Your task to perform on an android device: turn smart compose on in the gmail app Image 0: 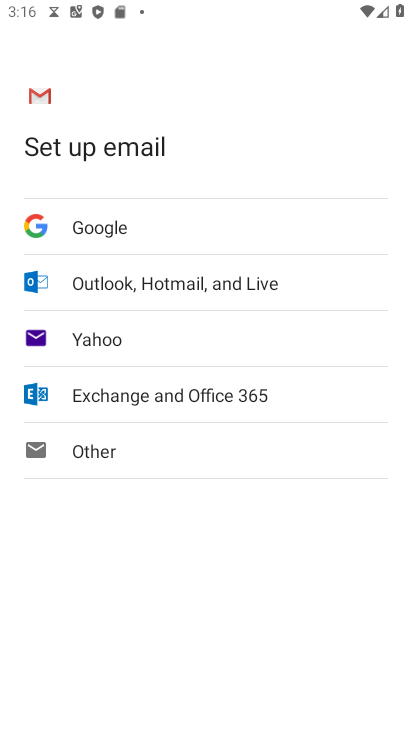
Step 0: press home button
Your task to perform on an android device: turn smart compose on in the gmail app Image 1: 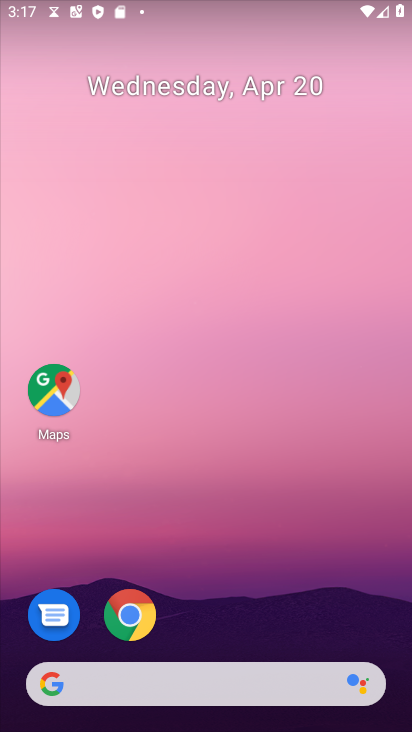
Step 1: drag from (191, 620) to (238, 269)
Your task to perform on an android device: turn smart compose on in the gmail app Image 2: 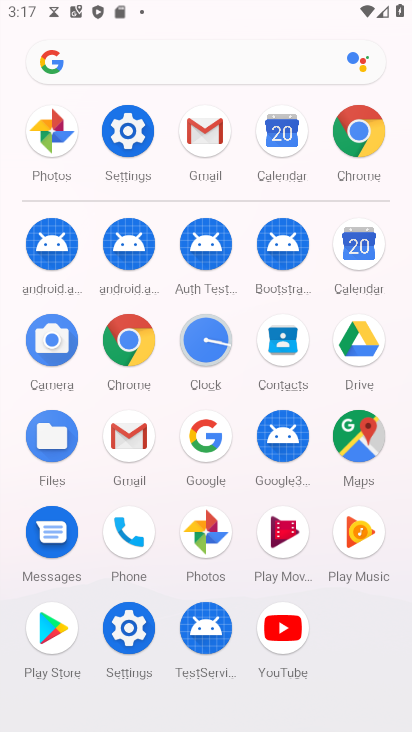
Step 2: click (146, 436)
Your task to perform on an android device: turn smart compose on in the gmail app Image 3: 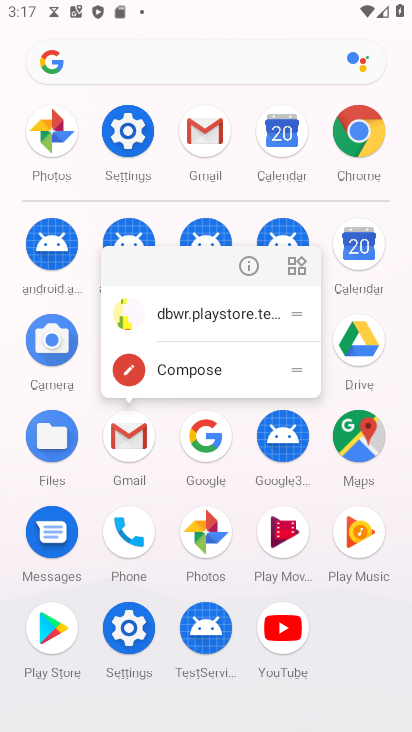
Step 3: click (258, 261)
Your task to perform on an android device: turn smart compose on in the gmail app Image 4: 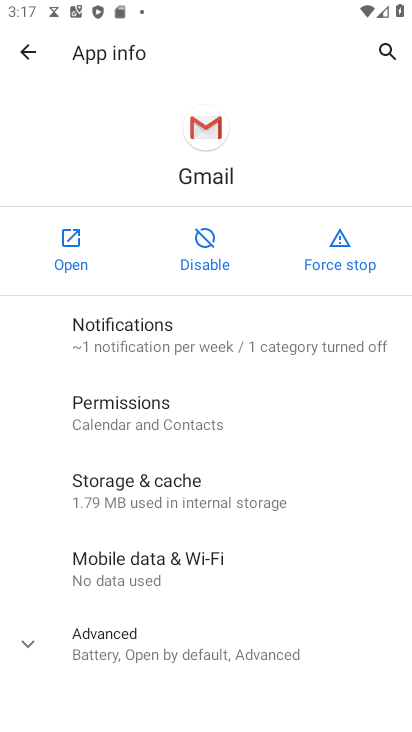
Step 4: click (68, 258)
Your task to perform on an android device: turn smart compose on in the gmail app Image 5: 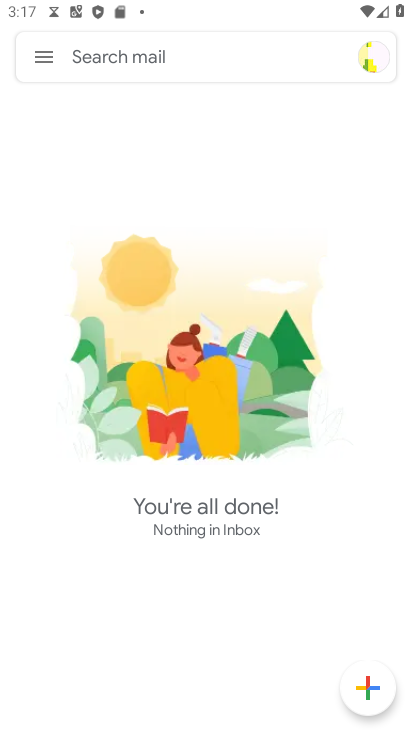
Step 5: click (35, 64)
Your task to perform on an android device: turn smart compose on in the gmail app Image 6: 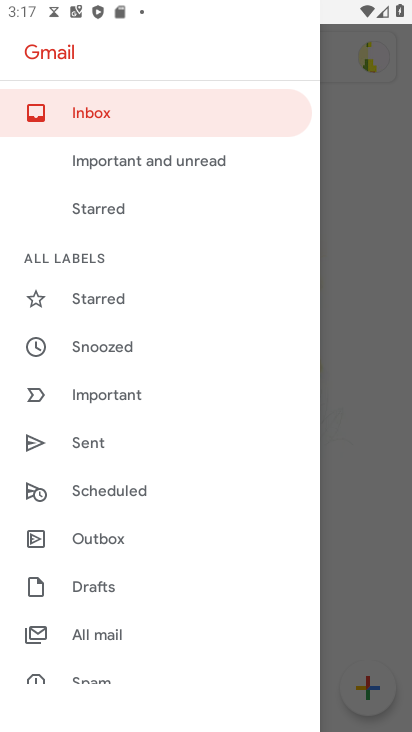
Step 6: drag from (122, 583) to (262, 68)
Your task to perform on an android device: turn smart compose on in the gmail app Image 7: 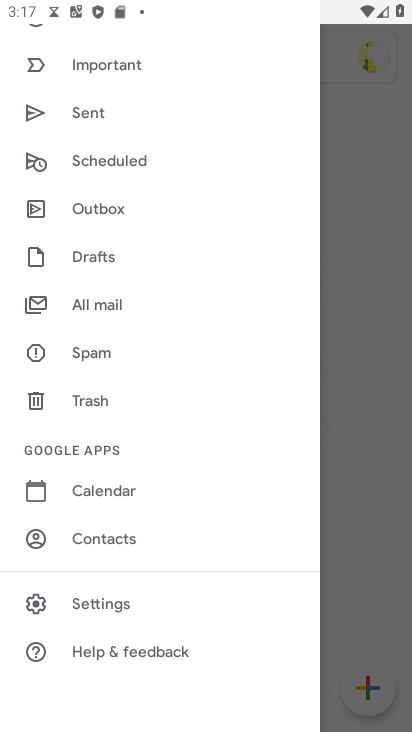
Step 7: click (116, 593)
Your task to perform on an android device: turn smart compose on in the gmail app Image 8: 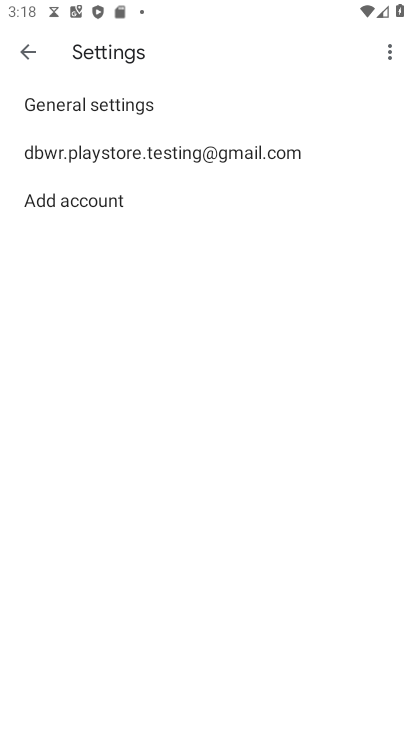
Step 8: click (241, 158)
Your task to perform on an android device: turn smart compose on in the gmail app Image 9: 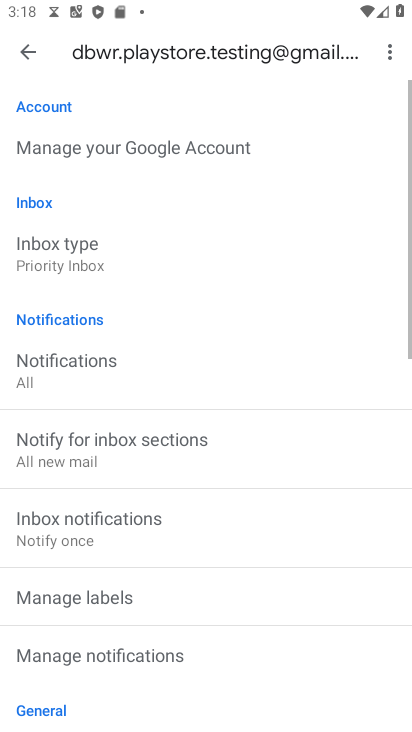
Step 9: drag from (183, 534) to (221, 275)
Your task to perform on an android device: turn smart compose on in the gmail app Image 10: 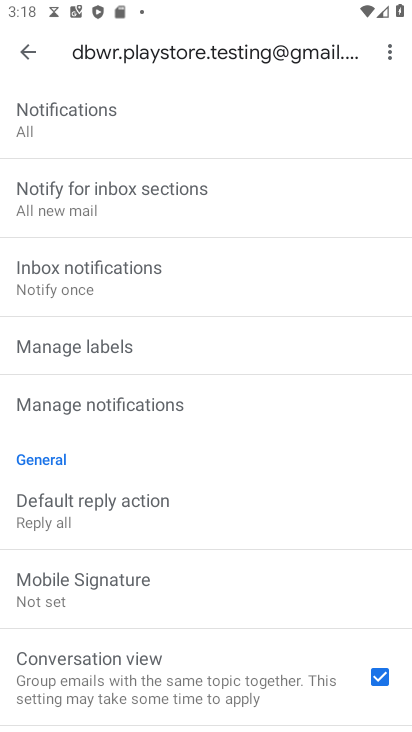
Step 10: drag from (245, 573) to (353, 20)
Your task to perform on an android device: turn smart compose on in the gmail app Image 11: 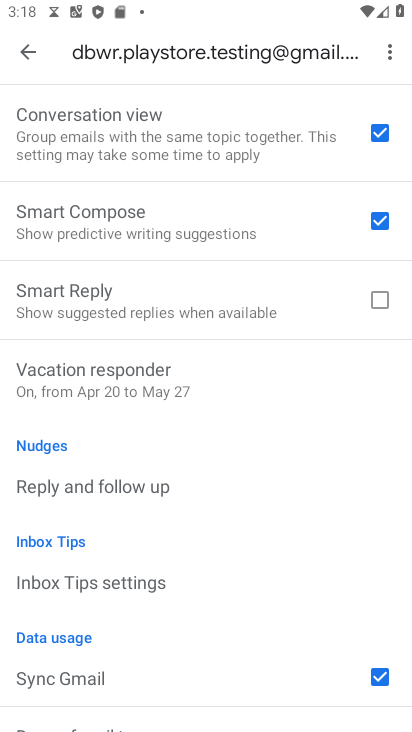
Step 11: click (369, 212)
Your task to perform on an android device: turn smart compose on in the gmail app Image 12: 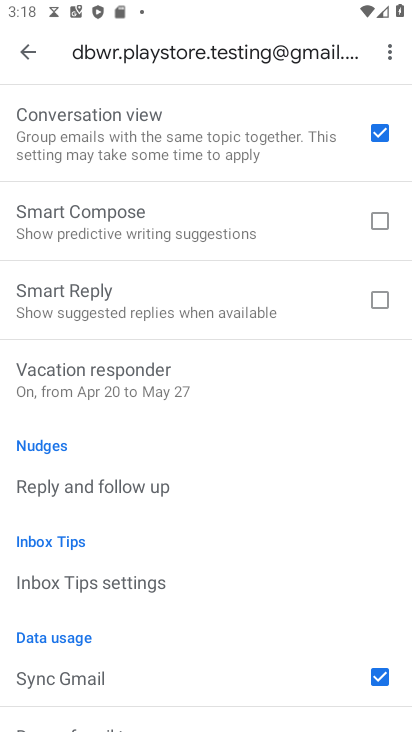
Step 12: click (374, 229)
Your task to perform on an android device: turn smart compose on in the gmail app Image 13: 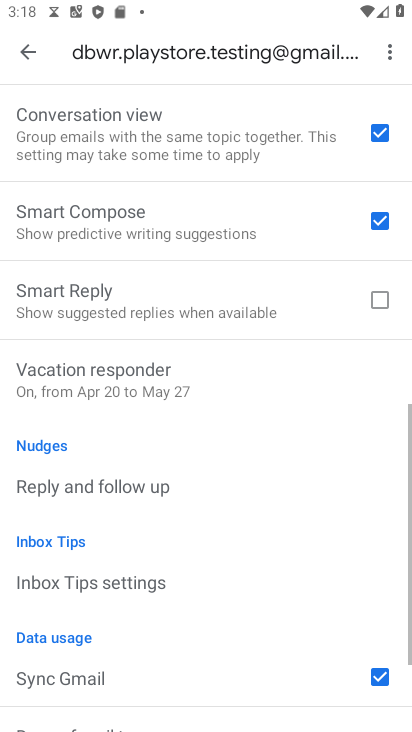
Step 13: task complete